Your task to perform on an android device: check android version Image 0: 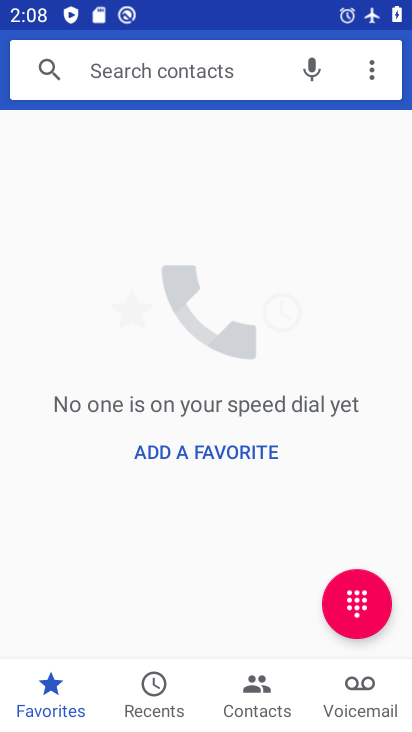
Step 0: press home button
Your task to perform on an android device: check android version Image 1: 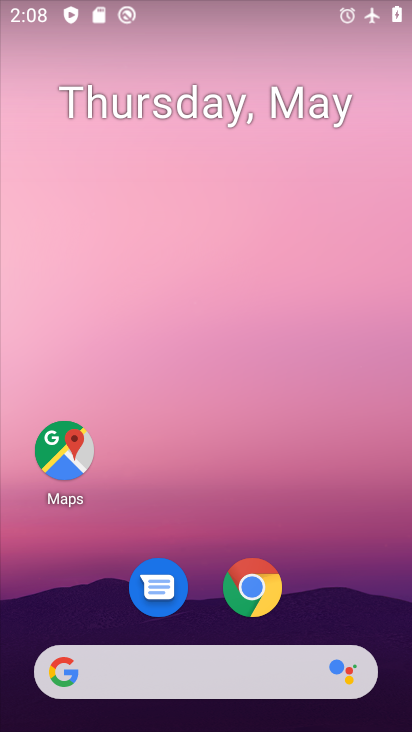
Step 1: drag from (326, 550) to (226, 135)
Your task to perform on an android device: check android version Image 2: 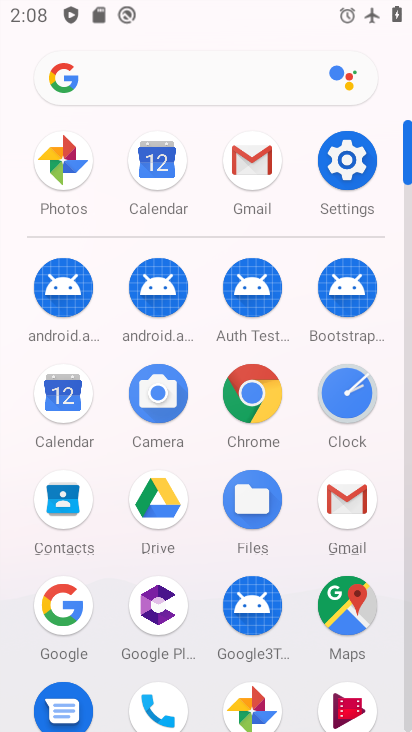
Step 2: click (352, 164)
Your task to perform on an android device: check android version Image 3: 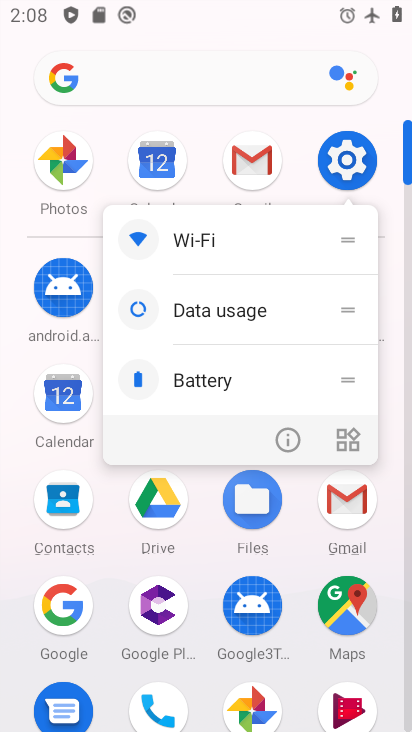
Step 3: click (340, 168)
Your task to perform on an android device: check android version Image 4: 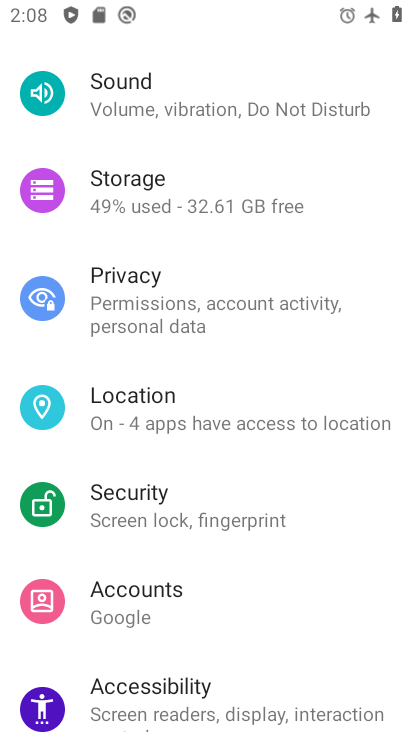
Step 4: drag from (222, 542) to (178, 256)
Your task to perform on an android device: check android version Image 5: 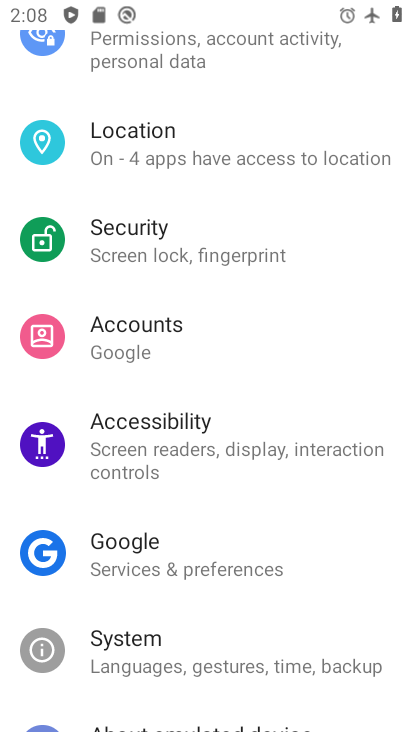
Step 5: drag from (175, 588) to (152, 282)
Your task to perform on an android device: check android version Image 6: 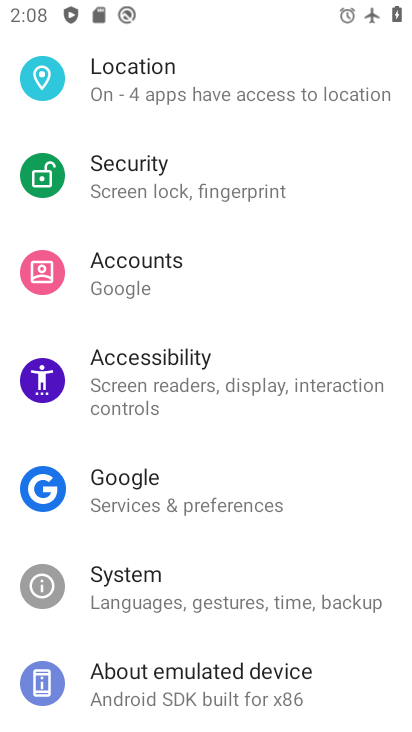
Step 6: drag from (158, 522) to (159, 214)
Your task to perform on an android device: check android version Image 7: 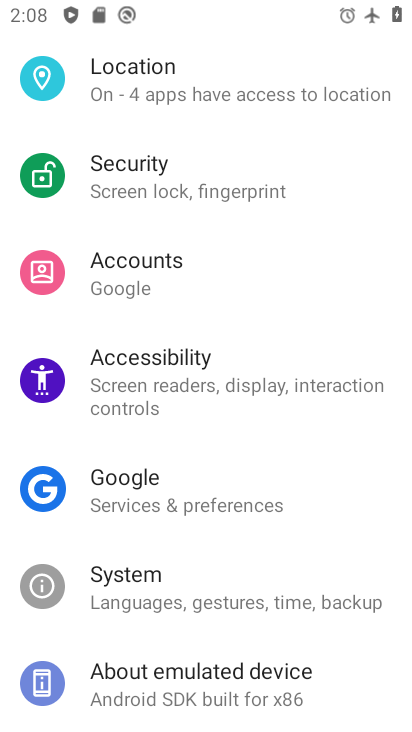
Step 7: click (152, 652)
Your task to perform on an android device: check android version Image 8: 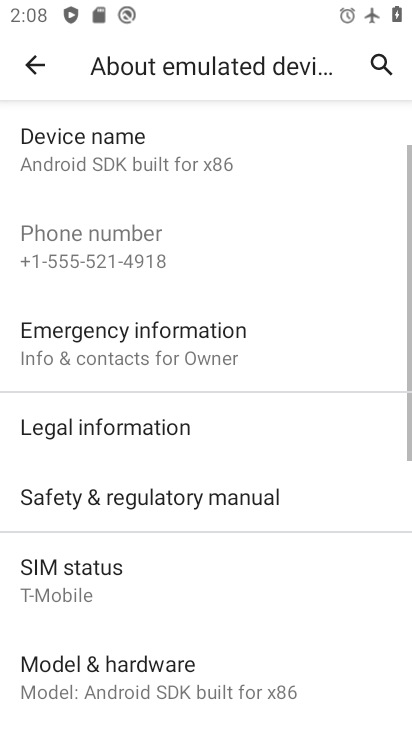
Step 8: click (128, 667)
Your task to perform on an android device: check android version Image 9: 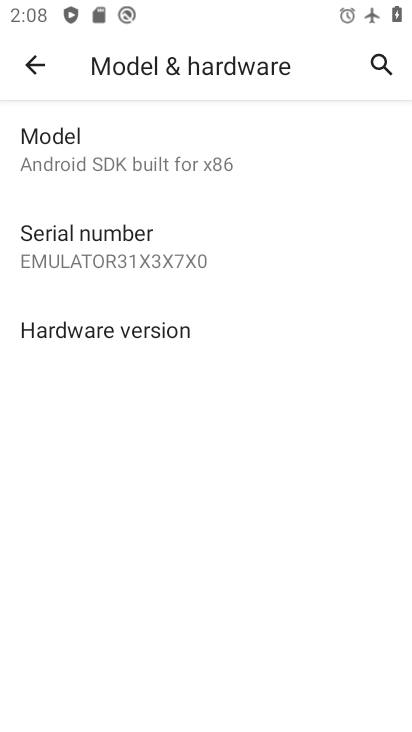
Step 9: click (35, 56)
Your task to perform on an android device: check android version Image 10: 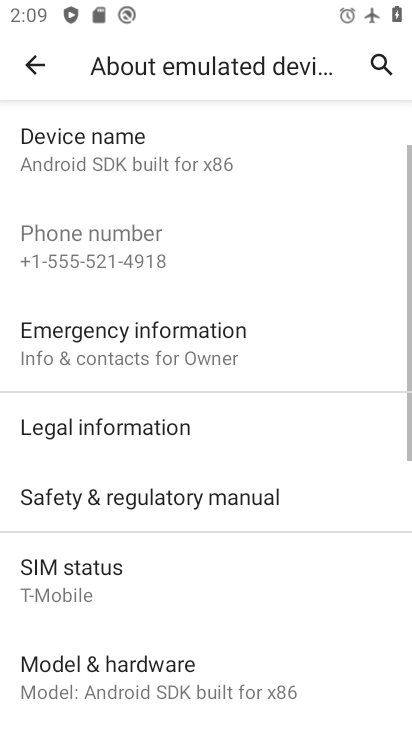
Step 10: drag from (158, 467) to (145, 165)
Your task to perform on an android device: check android version Image 11: 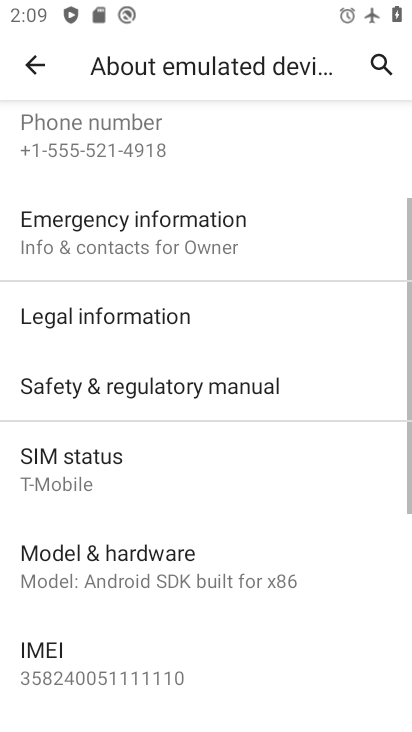
Step 11: drag from (172, 520) to (177, 304)
Your task to perform on an android device: check android version Image 12: 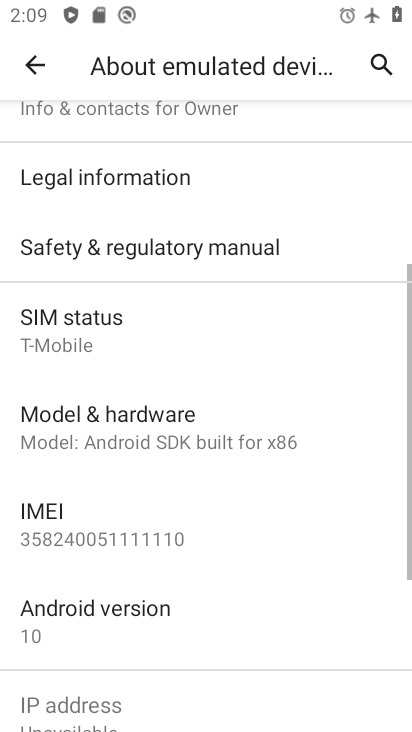
Step 12: drag from (131, 619) to (126, 408)
Your task to perform on an android device: check android version Image 13: 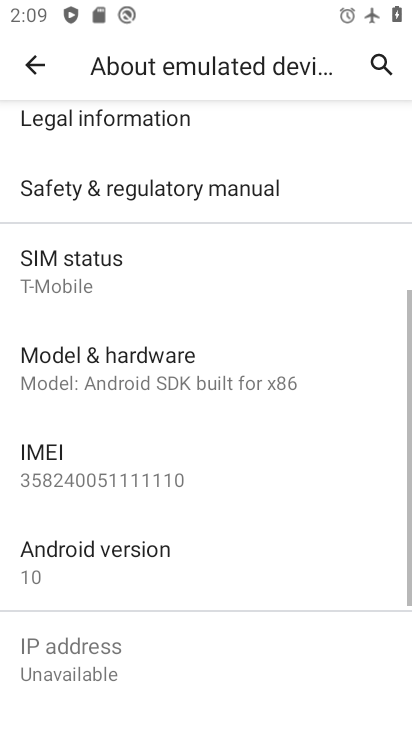
Step 13: click (66, 569)
Your task to perform on an android device: check android version Image 14: 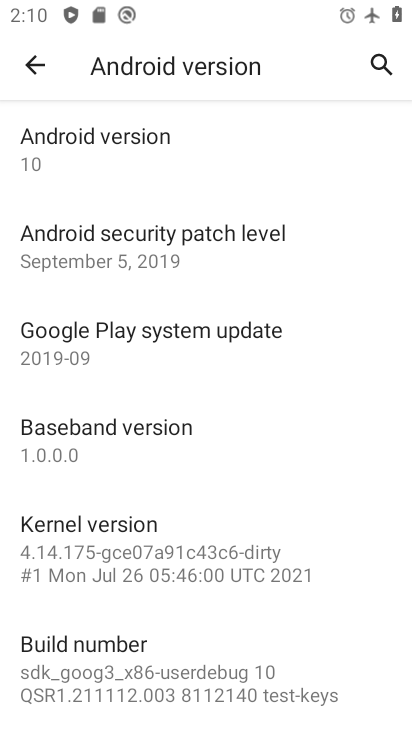
Step 14: drag from (216, 484) to (205, 62)
Your task to perform on an android device: check android version Image 15: 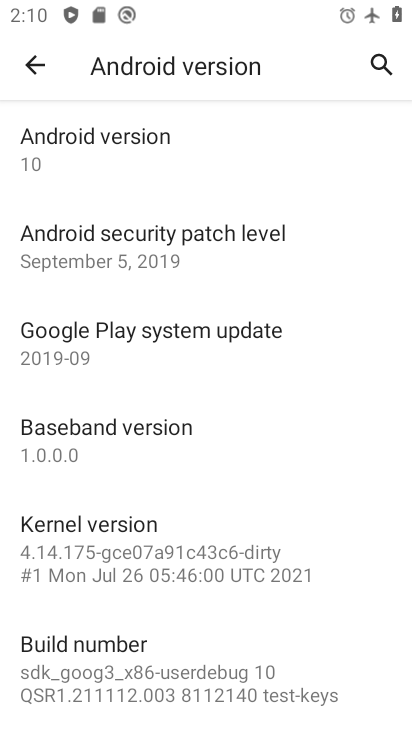
Step 15: click (347, 465)
Your task to perform on an android device: check android version Image 16: 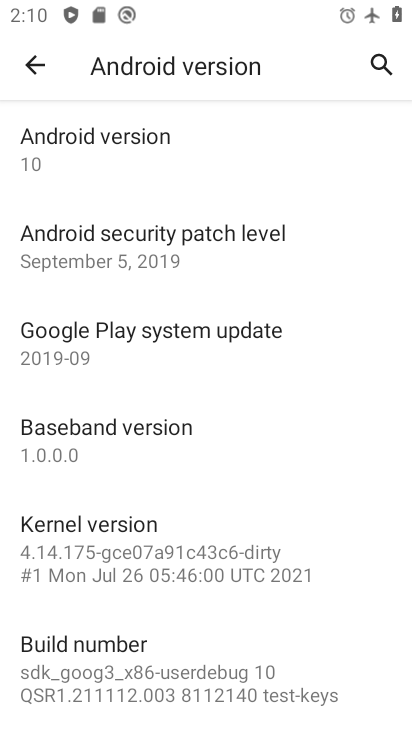
Step 16: task complete